Your task to perform on an android device: Search for sushi restaurants on Maps Image 0: 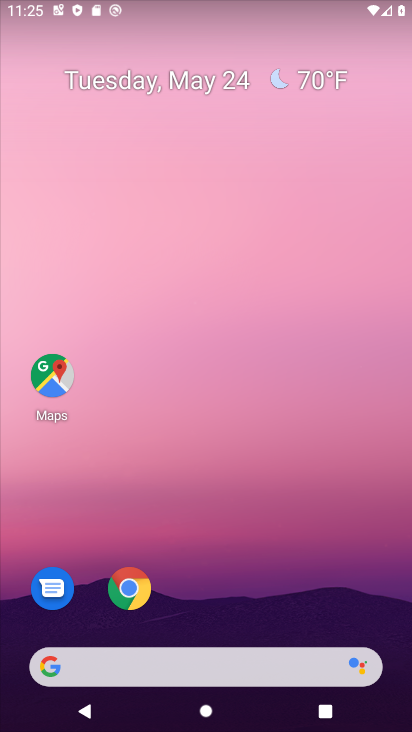
Step 0: press home button
Your task to perform on an android device: Search for sushi restaurants on Maps Image 1: 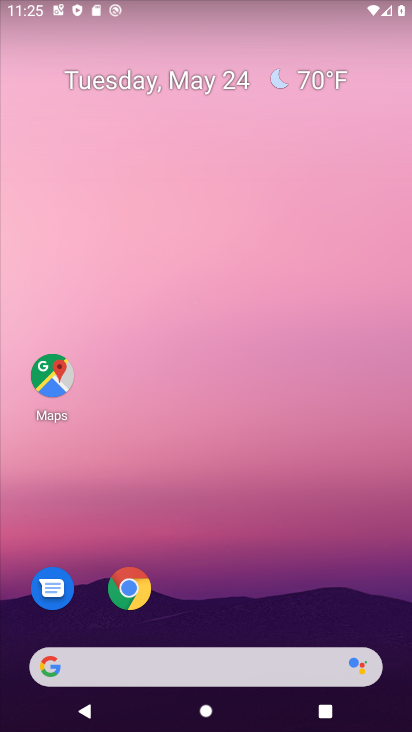
Step 1: click (54, 369)
Your task to perform on an android device: Search for sushi restaurants on Maps Image 2: 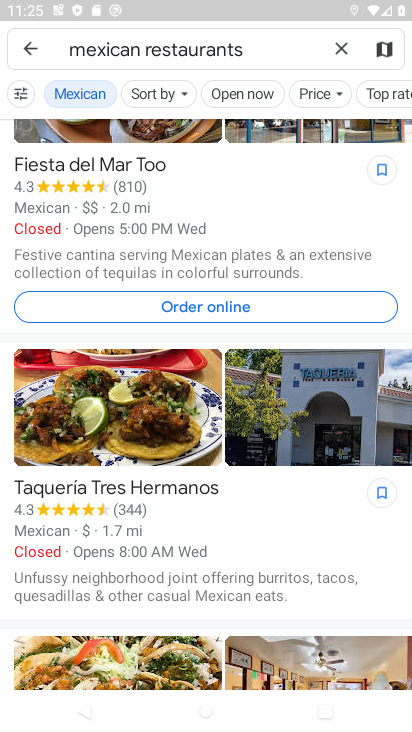
Step 2: click (340, 47)
Your task to perform on an android device: Search for sushi restaurants on Maps Image 3: 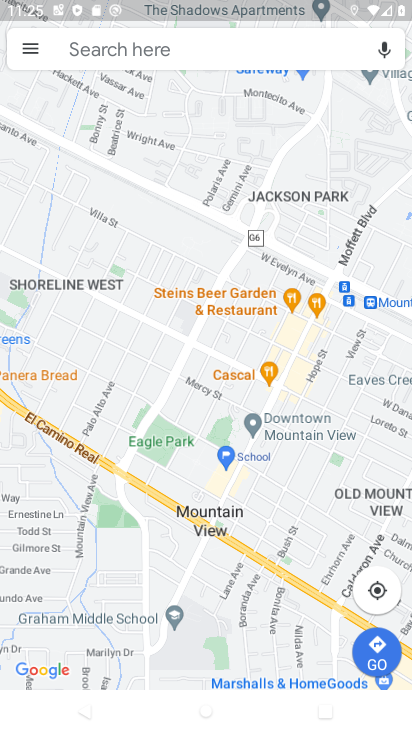
Step 3: click (102, 41)
Your task to perform on an android device: Search for sushi restaurants on Maps Image 4: 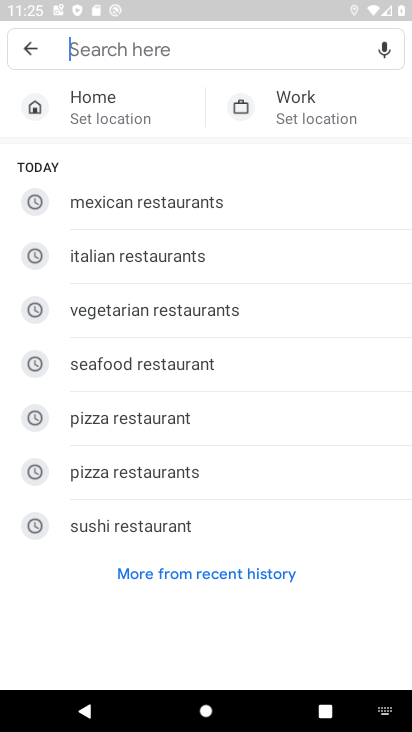
Step 4: click (134, 522)
Your task to perform on an android device: Search for sushi restaurants on Maps Image 5: 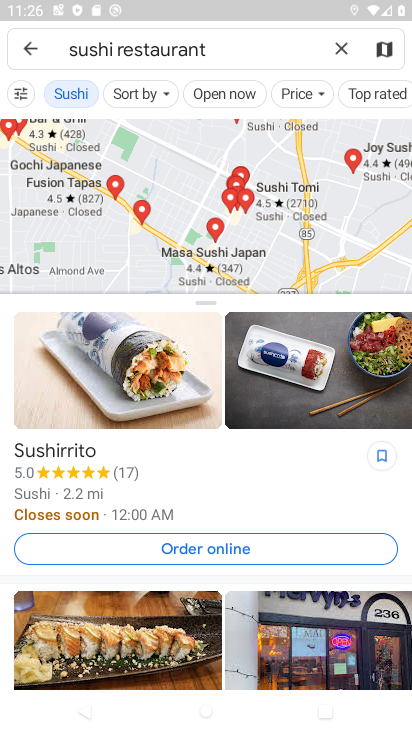
Step 5: task complete